Your task to perform on an android device: See recent photos Image 0: 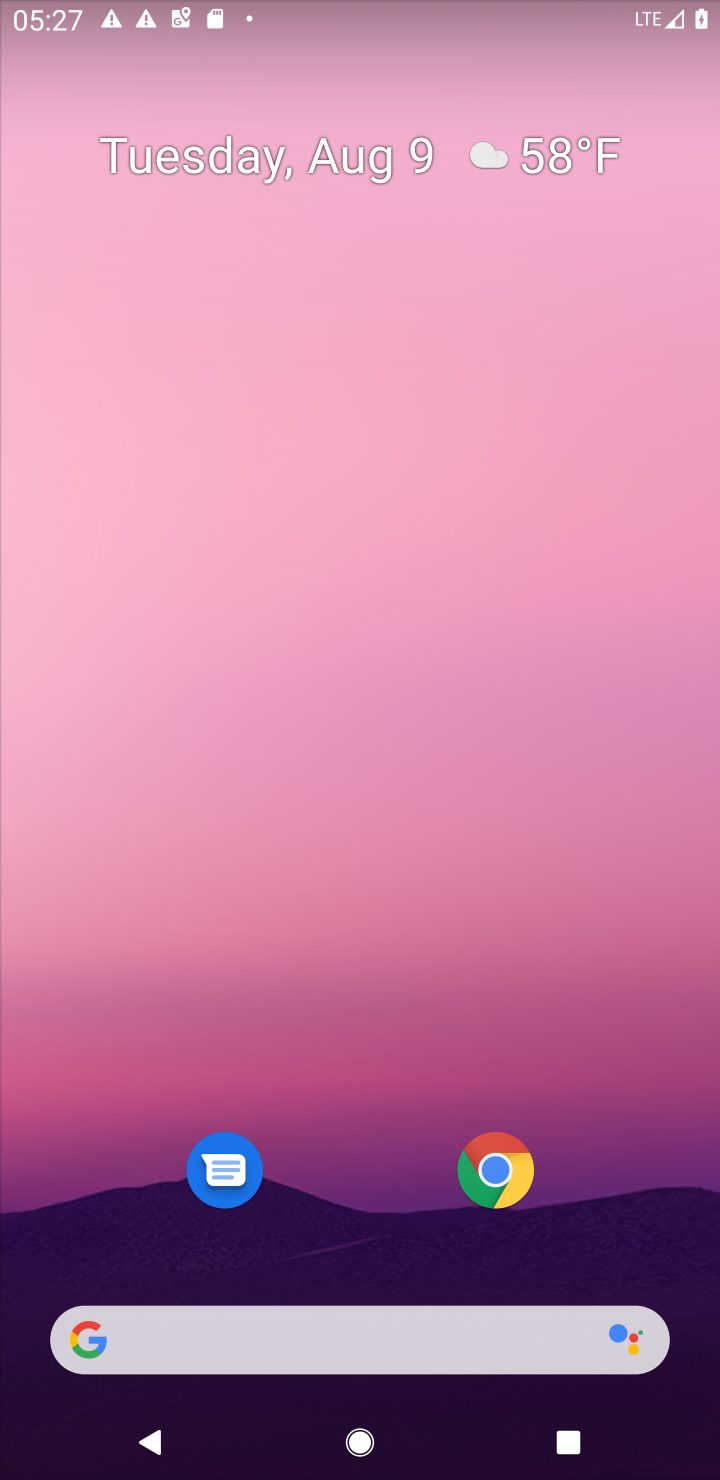
Step 0: press home button
Your task to perform on an android device: See recent photos Image 1: 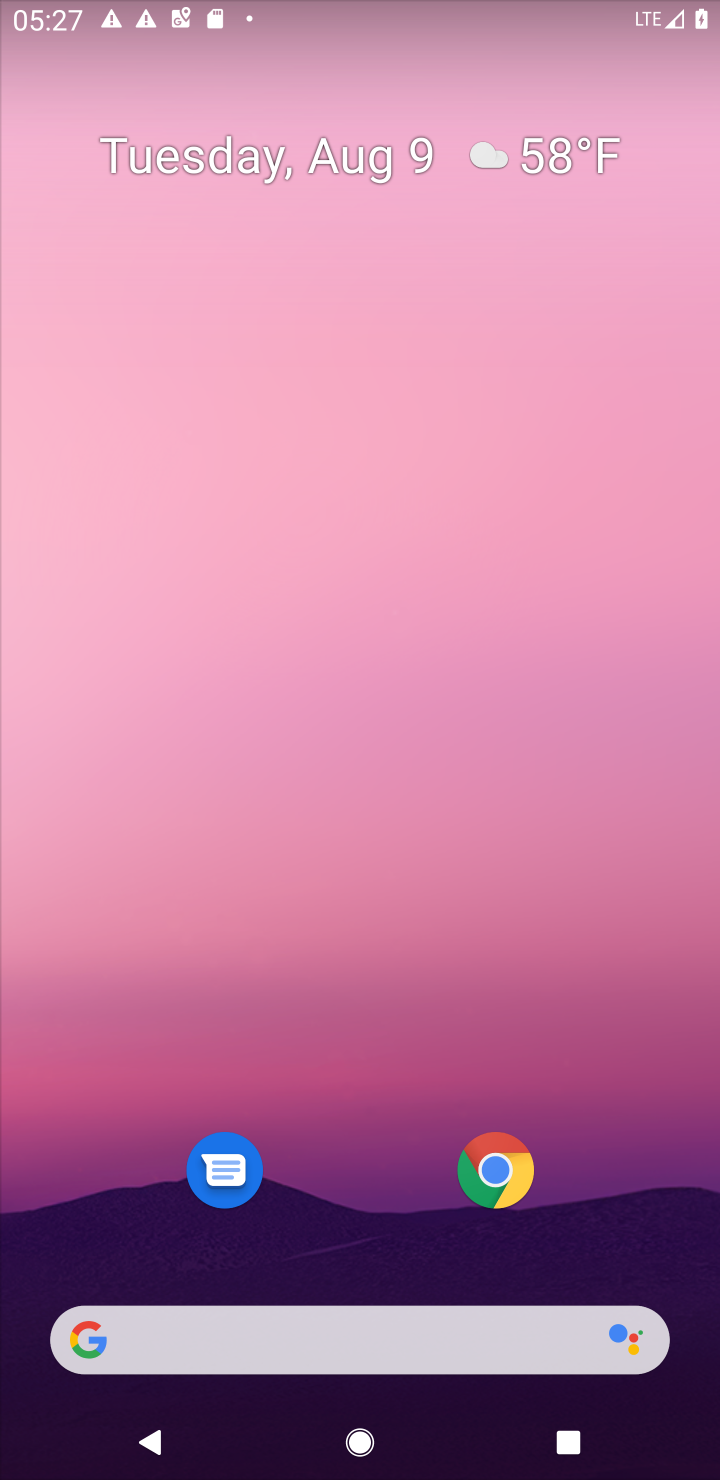
Step 1: drag from (407, 1260) to (500, 290)
Your task to perform on an android device: See recent photos Image 2: 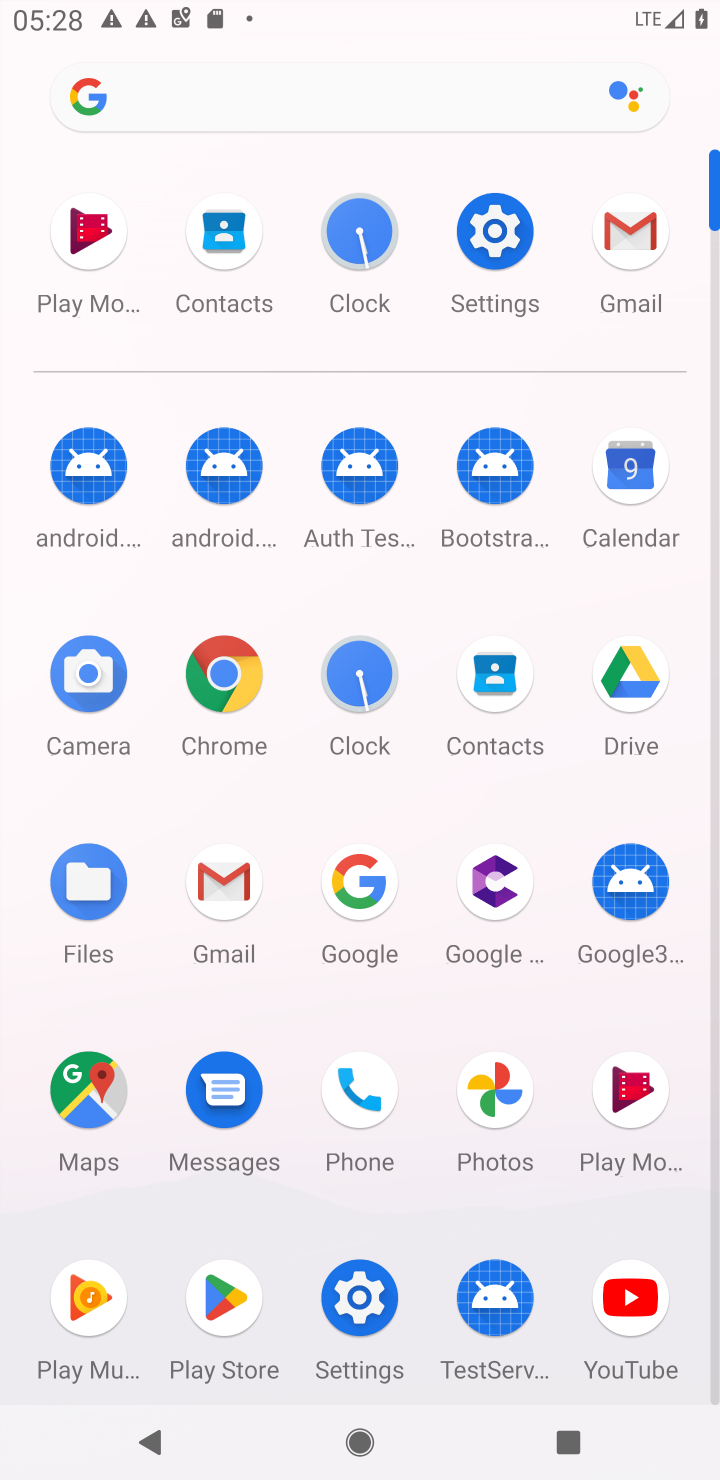
Step 2: click (498, 1087)
Your task to perform on an android device: See recent photos Image 3: 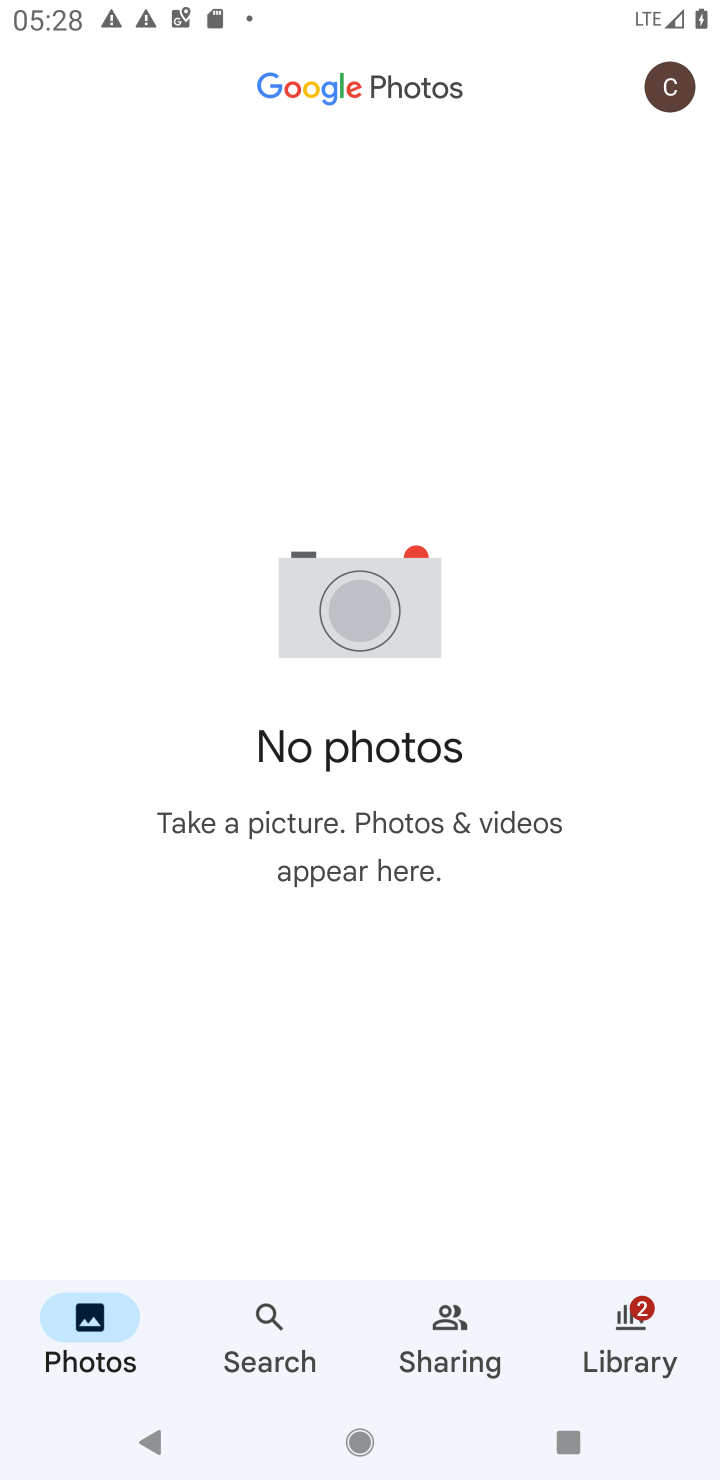
Step 3: task complete